Your task to perform on an android device: empty trash in google photos Image 0: 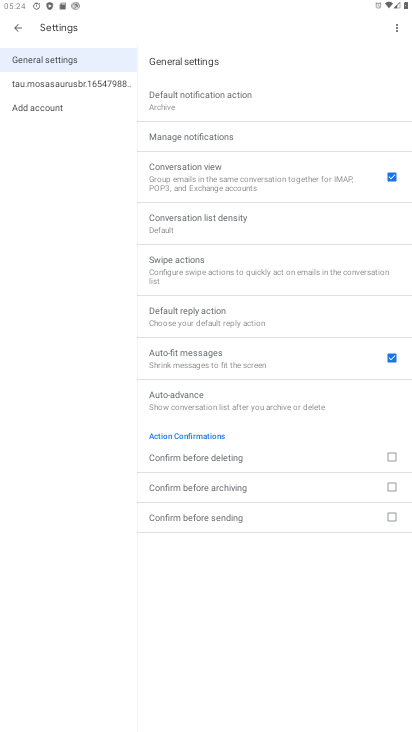
Step 0: press home button
Your task to perform on an android device: empty trash in google photos Image 1: 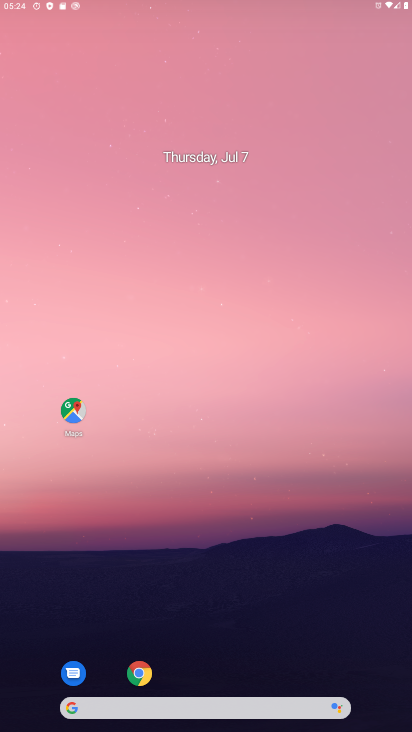
Step 1: drag from (282, 644) to (355, 5)
Your task to perform on an android device: empty trash in google photos Image 2: 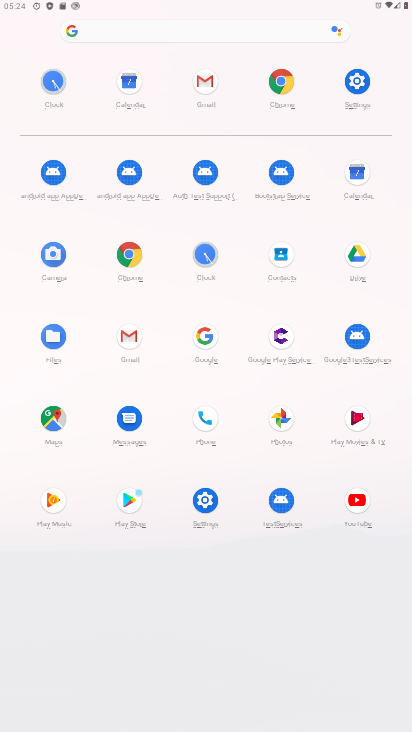
Step 2: click (269, 422)
Your task to perform on an android device: empty trash in google photos Image 3: 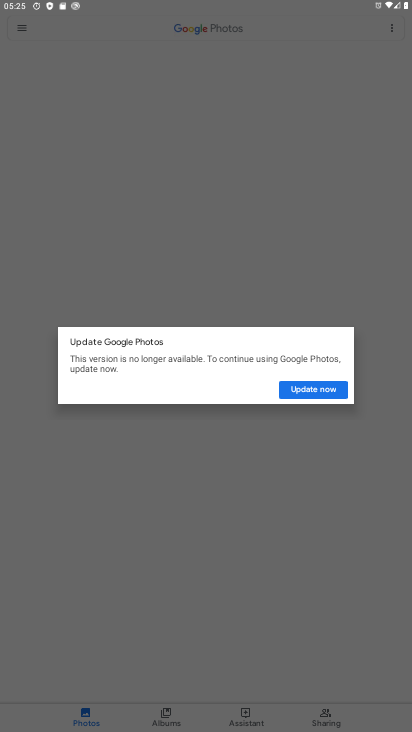
Step 3: click (298, 389)
Your task to perform on an android device: empty trash in google photos Image 4: 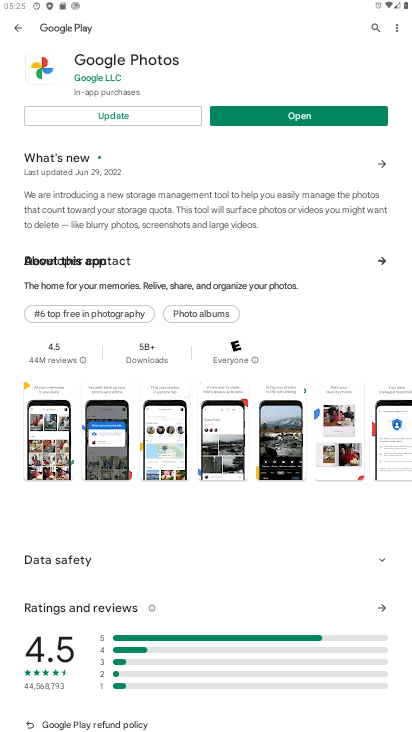
Step 4: click (128, 112)
Your task to perform on an android device: empty trash in google photos Image 5: 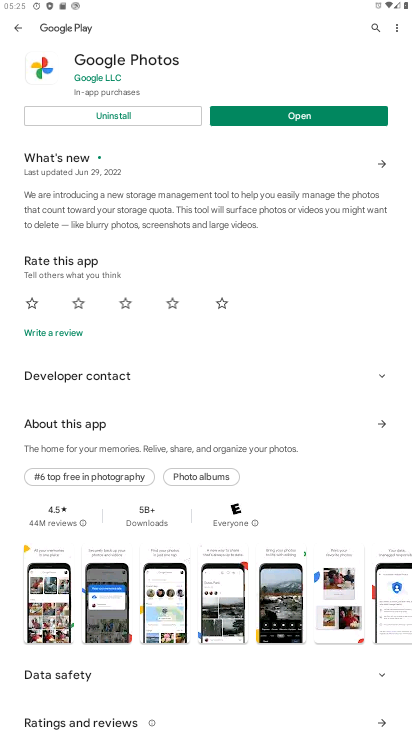
Step 5: click (273, 107)
Your task to perform on an android device: empty trash in google photos Image 6: 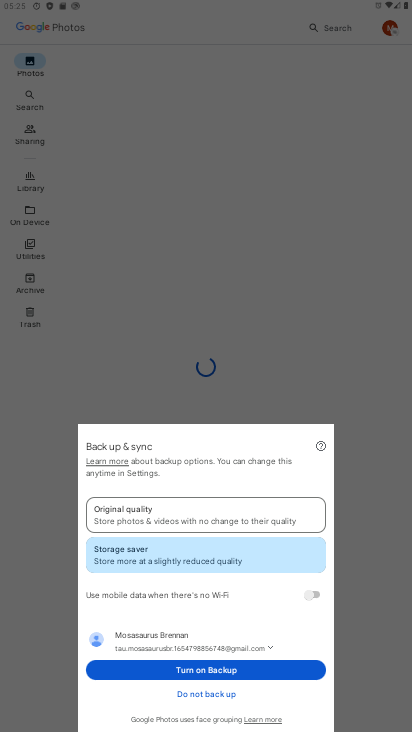
Step 6: click (207, 673)
Your task to perform on an android device: empty trash in google photos Image 7: 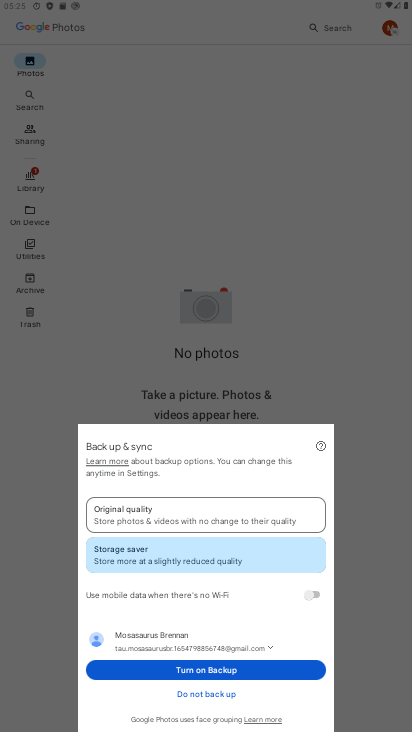
Step 7: click (210, 672)
Your task to perform on an android device: empty trash in google photos Image 8: 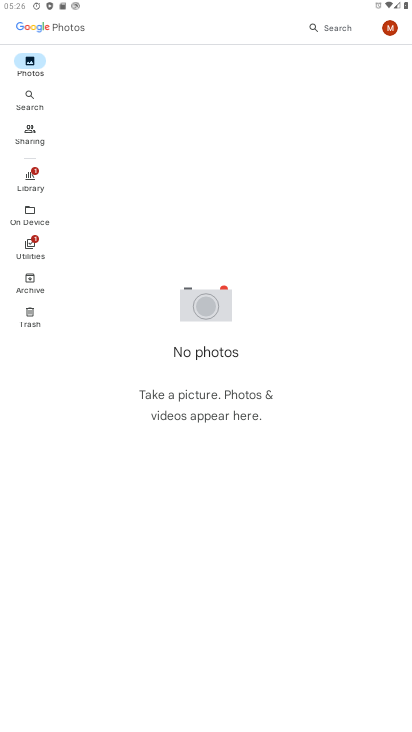
Step 8: click (30, 175)
Your task to perform on an android device: empty trash in google photos Image 9: 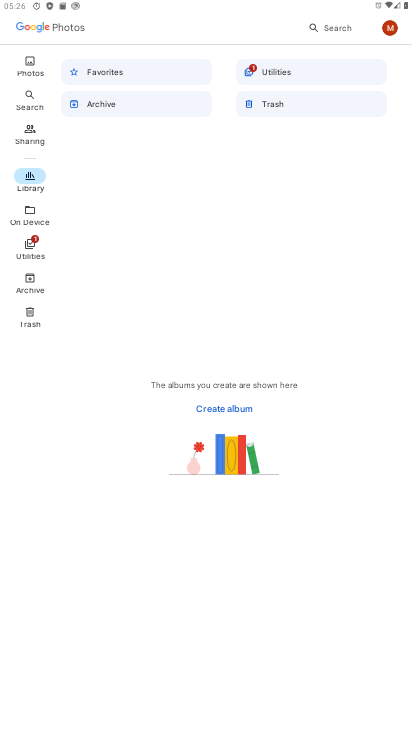
Step 9: click (266, 107)
Your task to perform on an android device: empty trash in google photos Image 10: 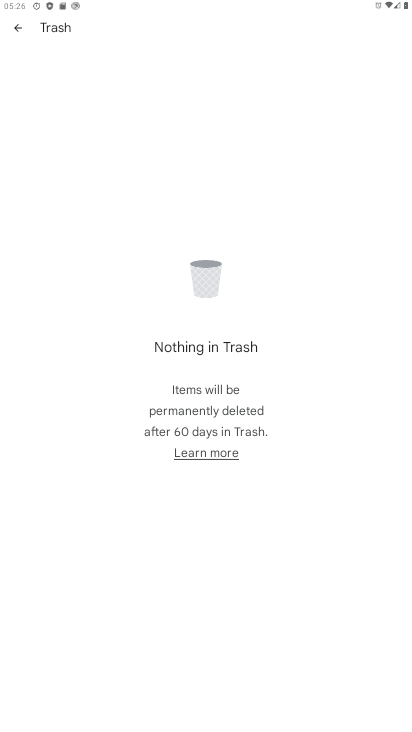
Step 10: task complete